Your task to perform on an android device: open a bookmark in the chrome app Image 0: 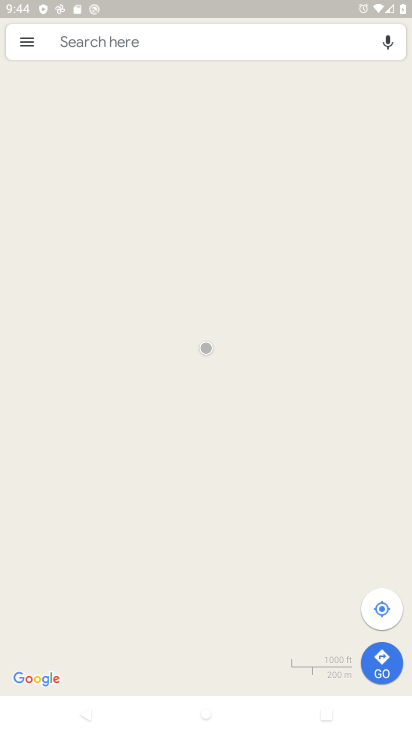
Step 0: press back button
Your task to perform on an android device: open a bookmark in the chrome app Image 1: 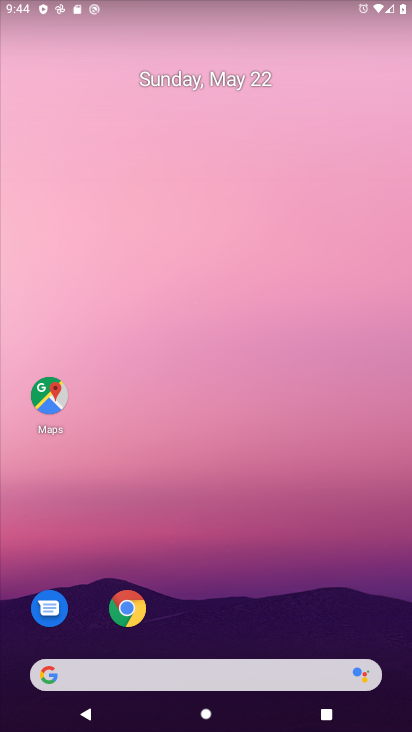
Step 1: drag from (272, 613) to (148, 3)
Your task to perform on an android device: open a bookmark in the chrome app Image 2: 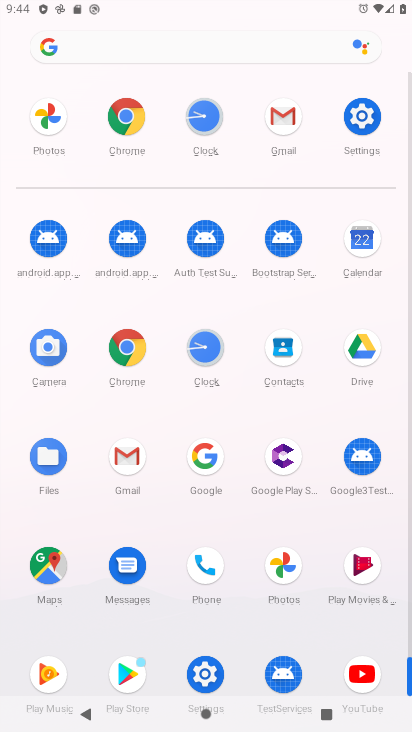
Step 2: drag from (0, 597) to (1, 237)
Your task to perform on an android device: open a bookmark in the chrome app Image 3: 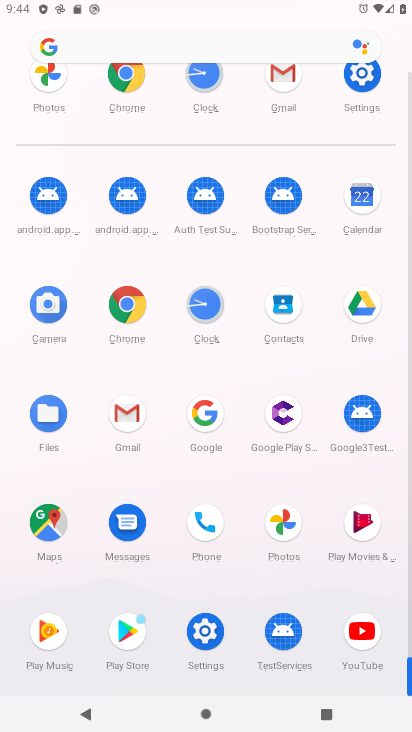
Step 3: click (126, 305)
Your task to perform on an android device: open a bookmark in the chrome app Image 4: 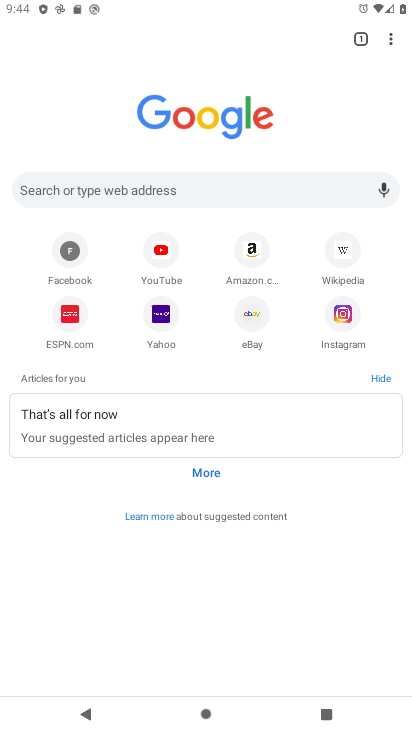
Step 4: task complete